Your task to perform on an android device: move a message to another label in the gmail app Image 0: 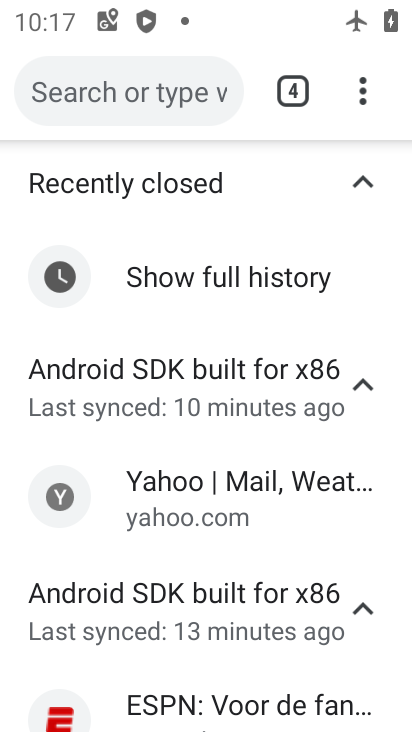
Step 0: press home button
Your task to perform on an android device: move a message to another label in the gmail app Image 1: 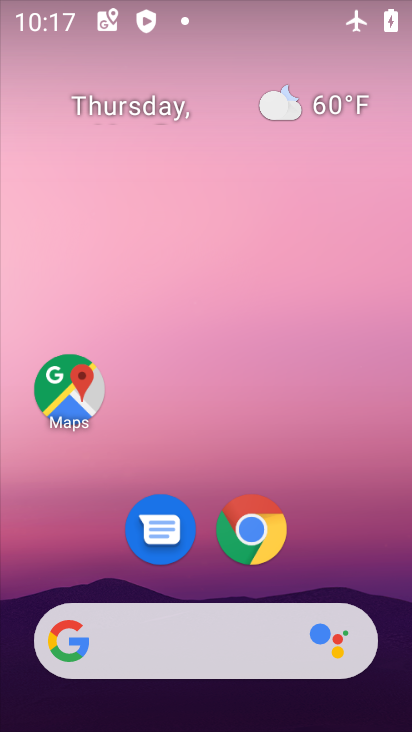
Step 1: drag from (338, 550) to (168, 44)
Your task to perform on an android device: move a message to another label in the gmail app Image 2: 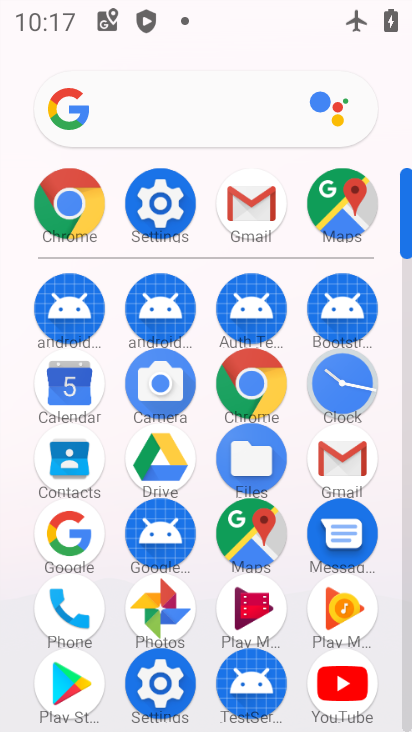
Step 2: click (343, 456)
Your task to perform on an android device: move a message to another label in the gmail app Image 3: 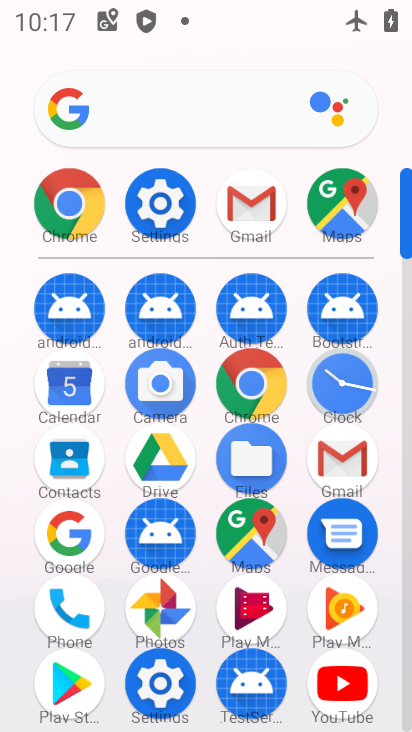
Step 3: click (337, 465)
Your task to perform on an android device: move a message to another label in the gmail app Image 4: 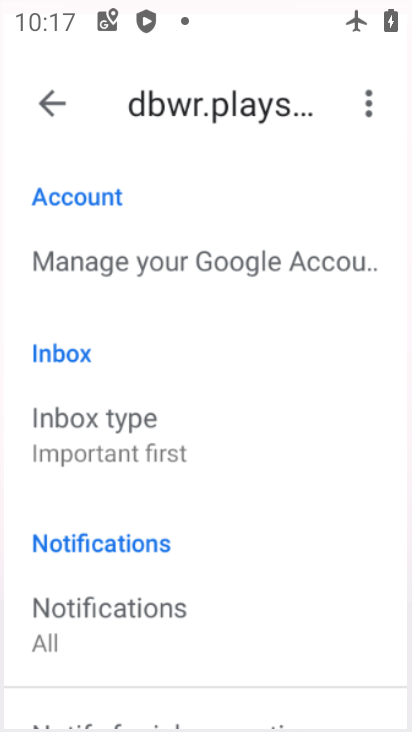
Step 4: click (337, 466)
Your task to perform on an android device: move a message to another label in the gmail app Image 5: 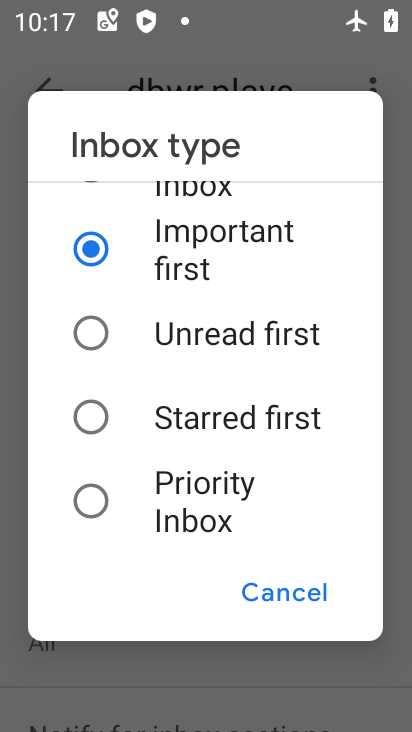
Step 5: click (275, 587)
Your task to perform on an android device: move a message to another label in the gmail app Image 6: 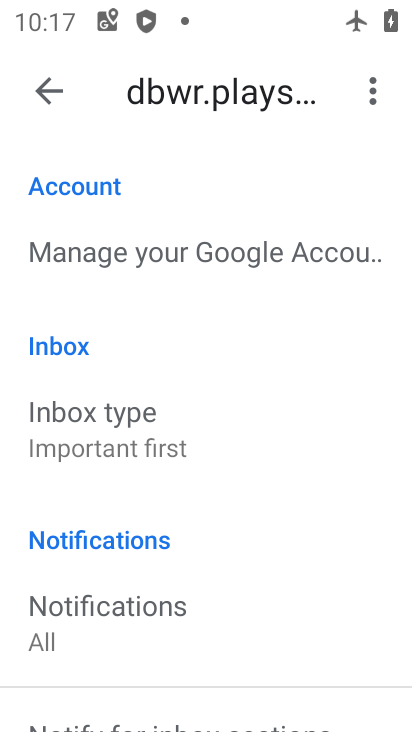
Step 6: click (49, 80)
Your task to perform on an android device: move a message to another label in the gmail app Image 7: 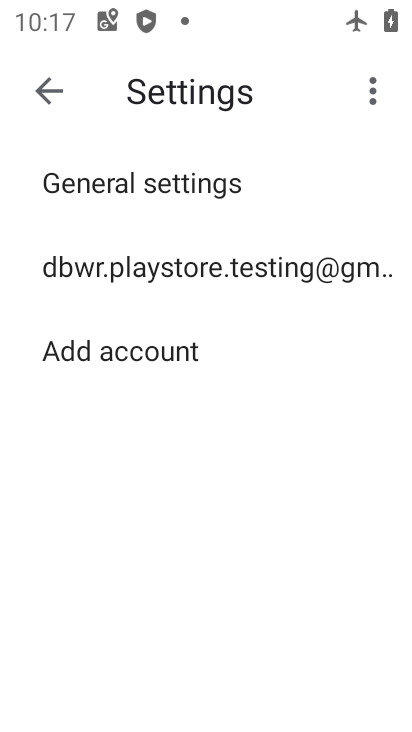
Step 7: click (44, 85)
Your task to perform on an android device: move a message to another label in the gmail app Image 8: 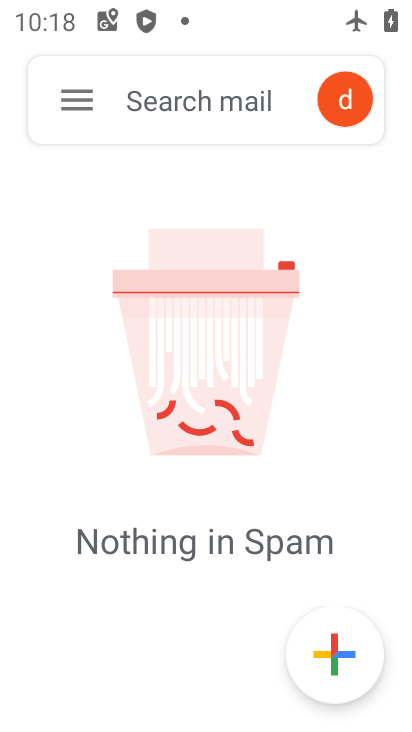
Step 8: click (58, 96)
Your task to perform on an android device: move a message to another label in the gmail app Image 9: 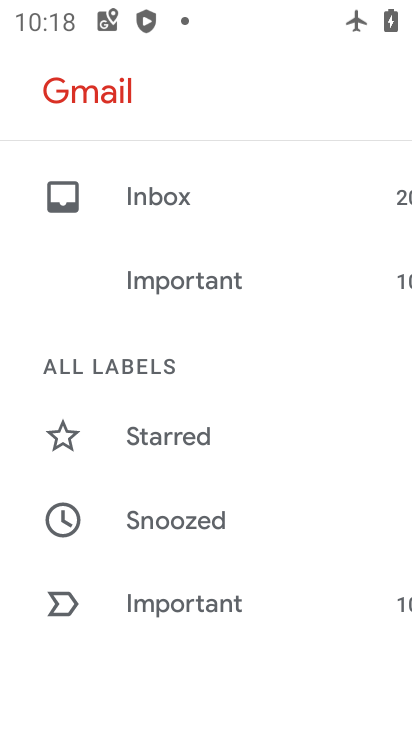
Step 9: drag from (223, 537) to (174, 161)
Your task to perform on an android device: move a message to another label in the gmail app Image 10: 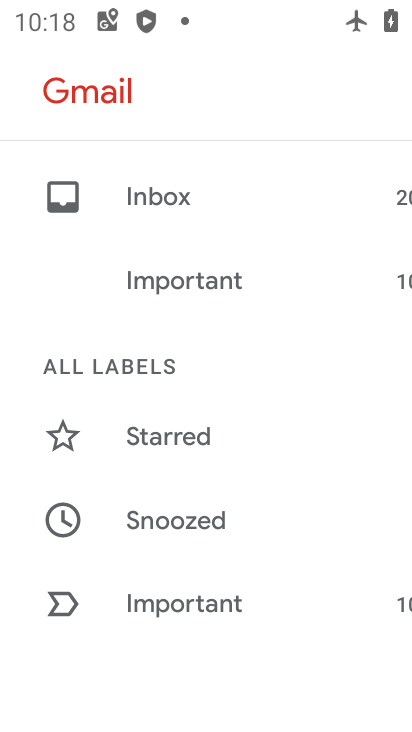
Step 10: drag from (228, 535) to (224, 172)
Your task to perform on an android device: move a message to another label in the gmail app Image 11: 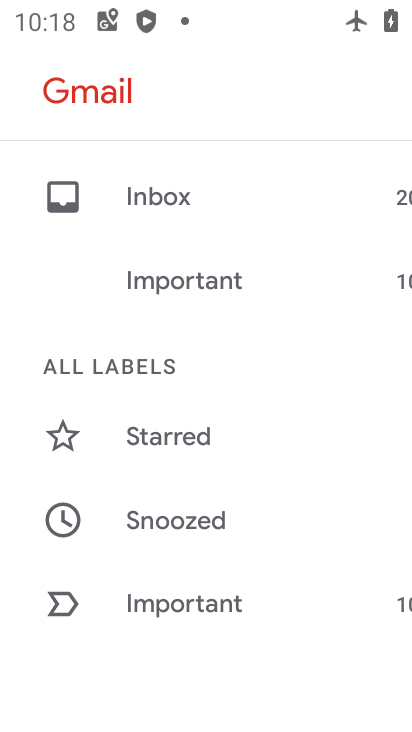
Step 11: drag from (276, 529) to (284, 161)
Your task to perform on an android device: move a message to another label in the gmail app Image 12: 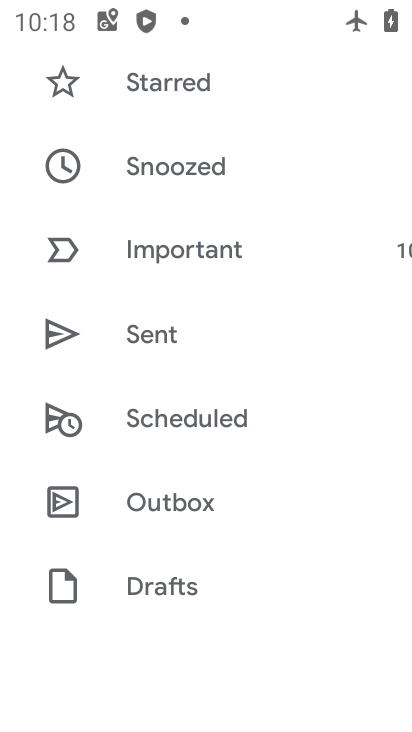
Step 12: drag from (208, 570) to (210, 165)
Your task to perform on an android device: move a message to another label in the gmail app Image 13: 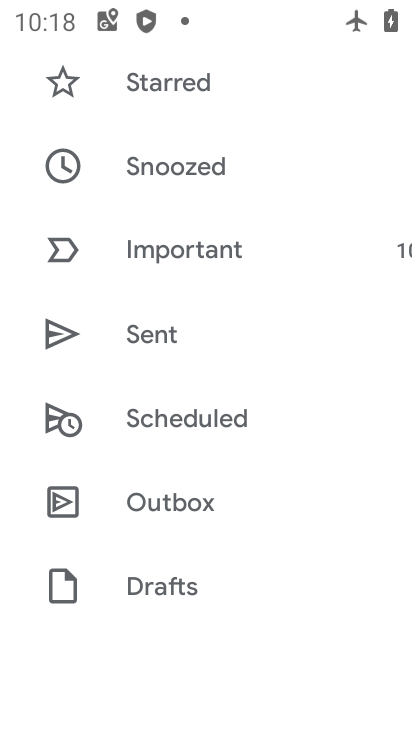
Step 13: drag from (216, 521) to (197, 20)
Your task to perform on an android device: move a message to another label in the gmail app Image 14: 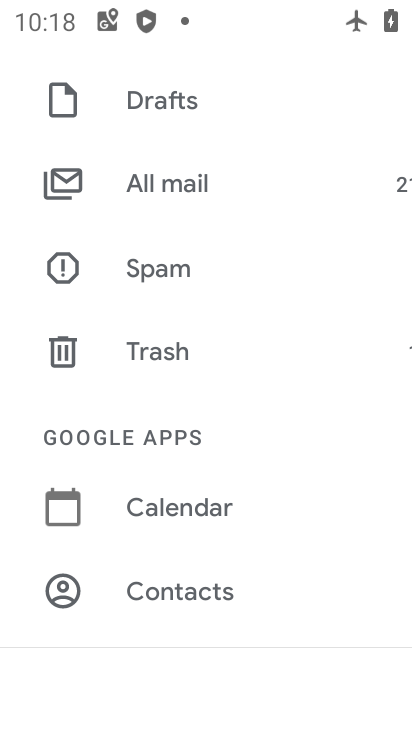
Step 14: click (187, 186)
Your task to perform on an android device: move a message to another label in the gmail app Image 15: 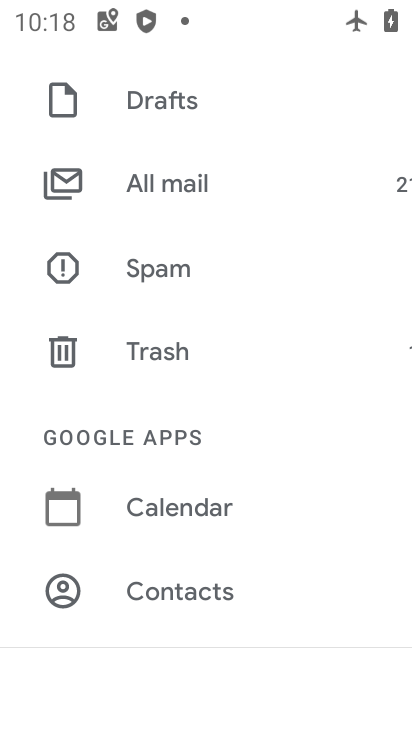
Step 15: click (186, 185)
Your task to perform on an android device: move a message to another label in the gmail app Image 16: 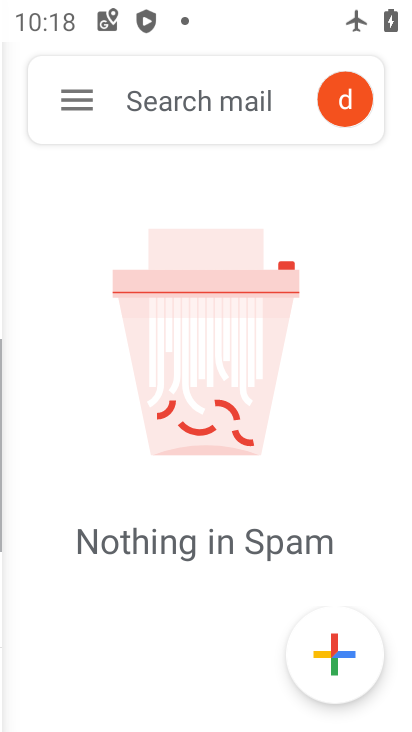
Step 16: click (173, 182)
Your task to perform on an android device: move a message to another label in the gmail app Image 17: 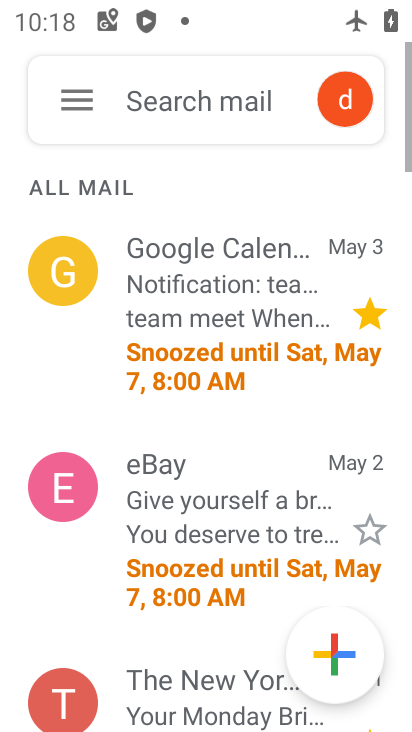
Step 17: click (218, 313)
Your task to perform on an android device: move a message to another label in the gmail app Image 18: 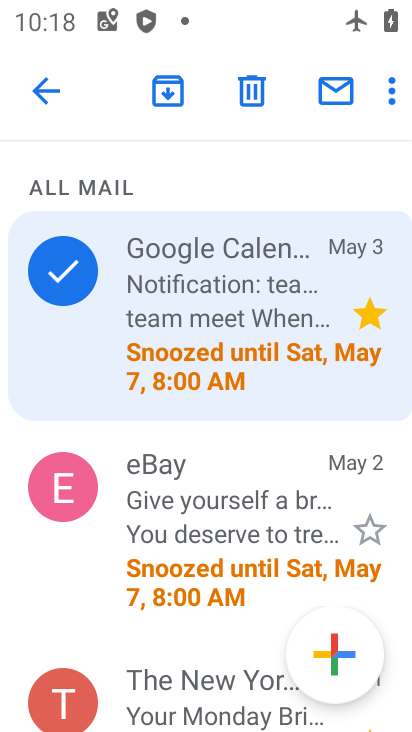
Step 18: click (385, 93)
Your task to perform on an android device: move a message to another label in the gmail app Image 19: 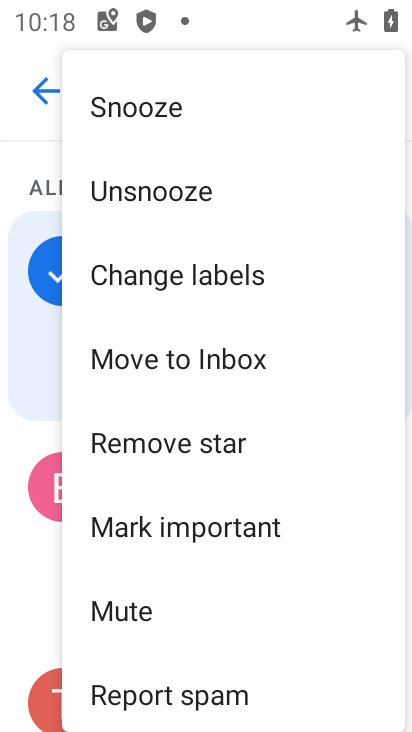
Step 19: click (166, 196)
Your task to perform on an android device: move a message to another label in the gmail app Image 20: 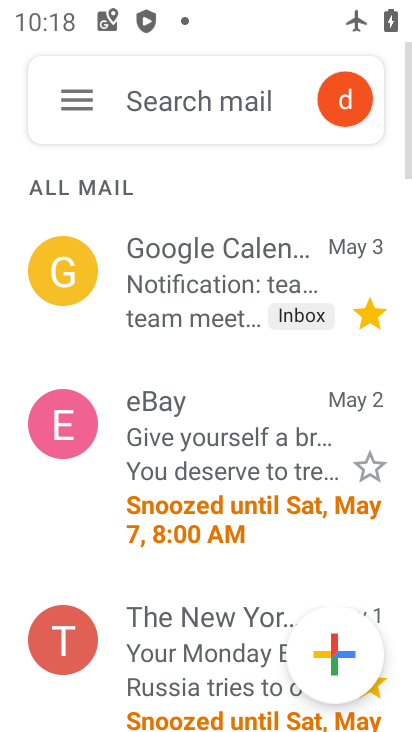
Step 20: task complete